Your task to perform on an android device: turn off notifications settings in the gmail app Image 0: 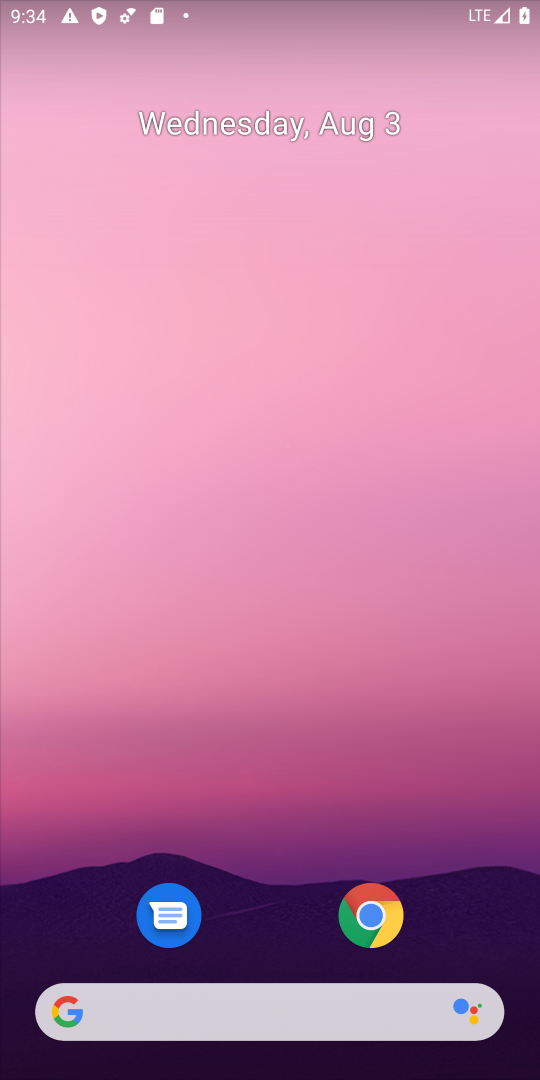
Step 0: drag from (213, 971) to (276, 333)
Your task to perform on an android device: turn off notifications settings in the gmail app Image 1: 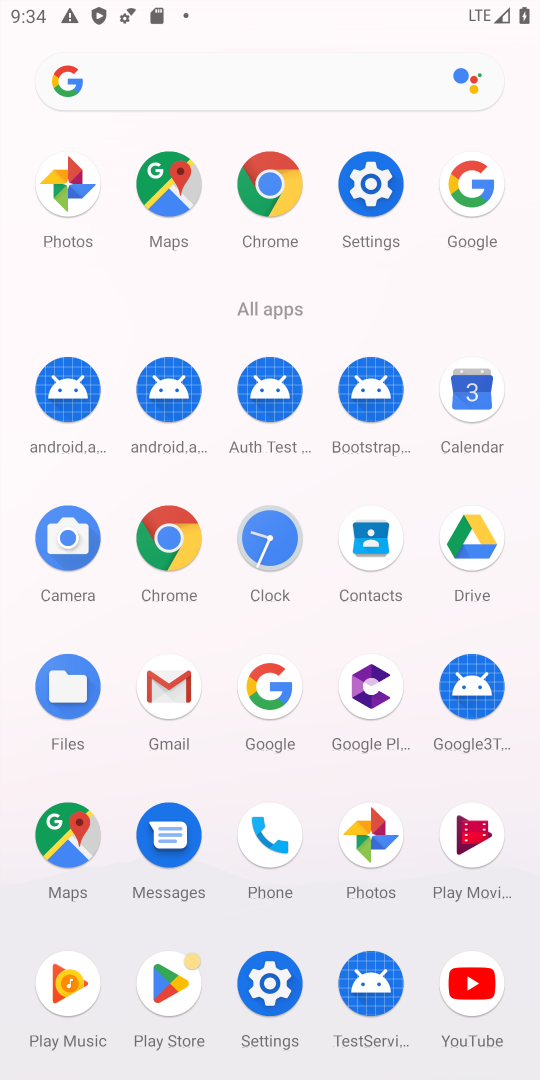
Step 1: click (159, 709)
Your task to perform on an android device: turn off notifications settings in the gmail app Image 2: 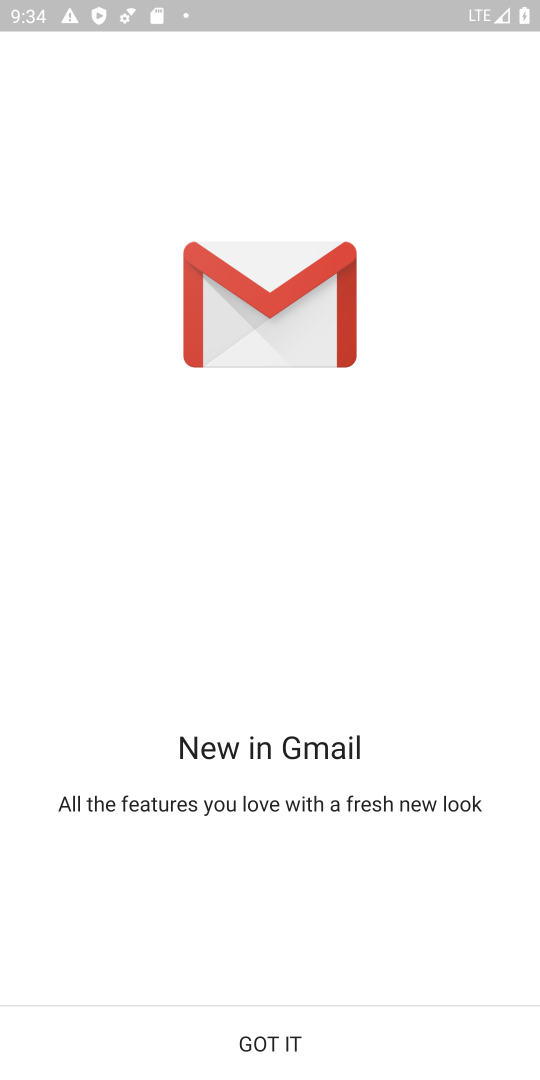
Step 2: click (273, 1047)
Your task to perform on an android device: turn off notifications settings in the gmail app Image 3: 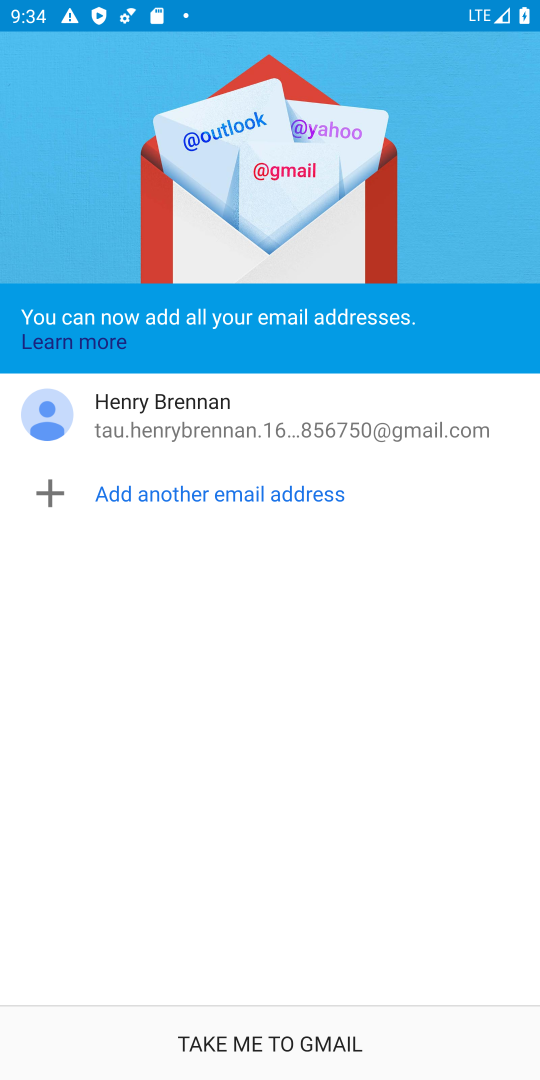
Step 3: click (273, 1046)
Your task to perform on an android device: turn off notifications settings in the gmail app Image 4: 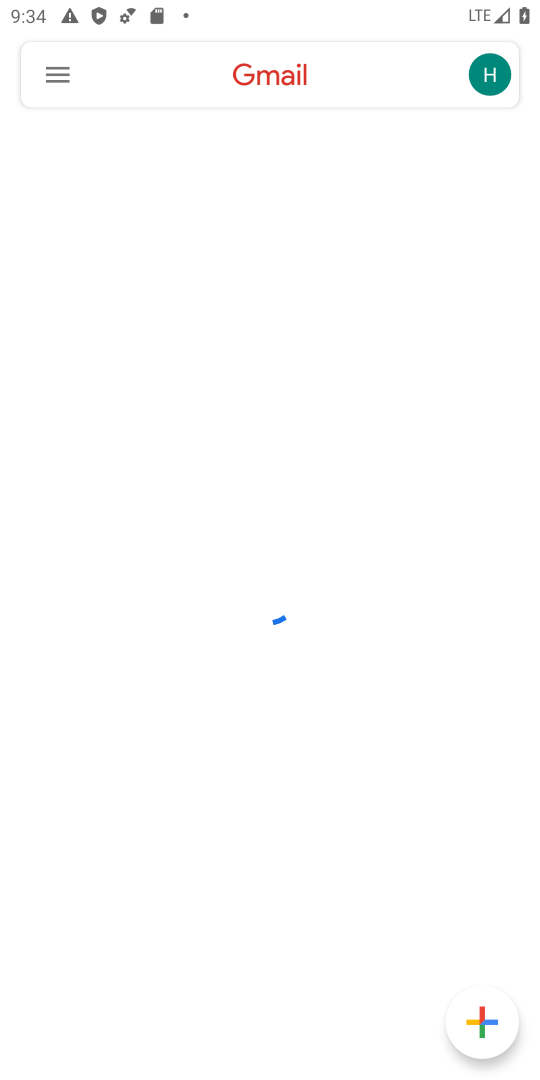
Step 4: click (47, 76)
Your task to perform on an android device: turn off notifications settings in the gmail app Image 5: 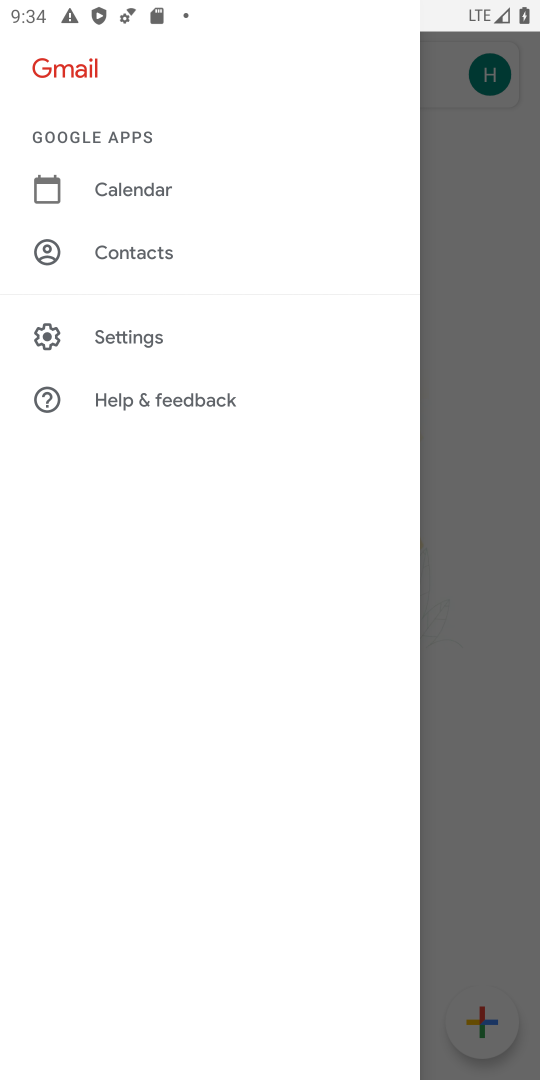
Step 5: click (167, 332)
Your task to perform on an android device: turn off notifications settings in the gmail app Image 6: 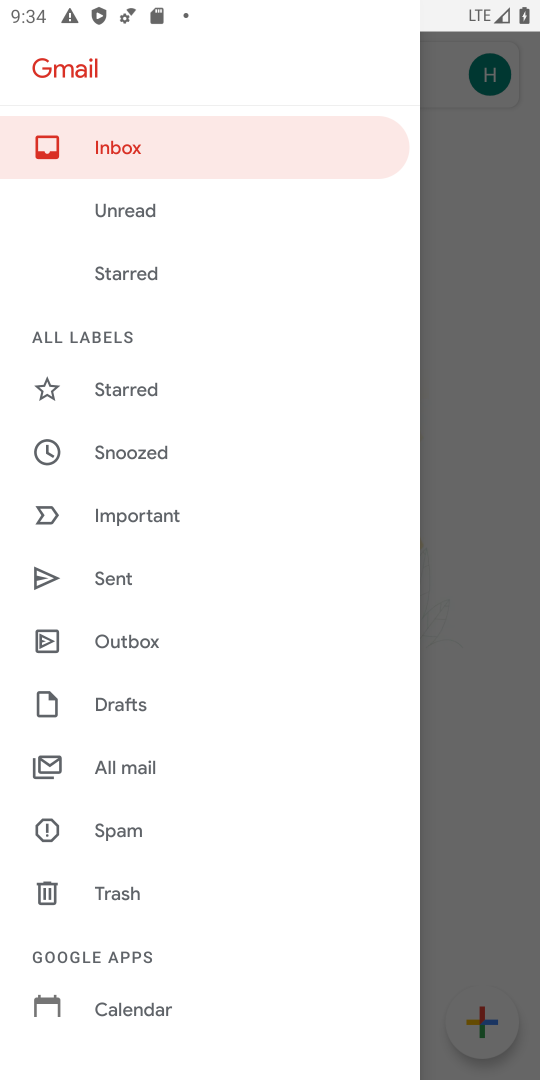
Step 6: drag from (156, 946) to (244, 240)
Your task to perform on an android device: turn off notifications settings in the gmail app Image 7: 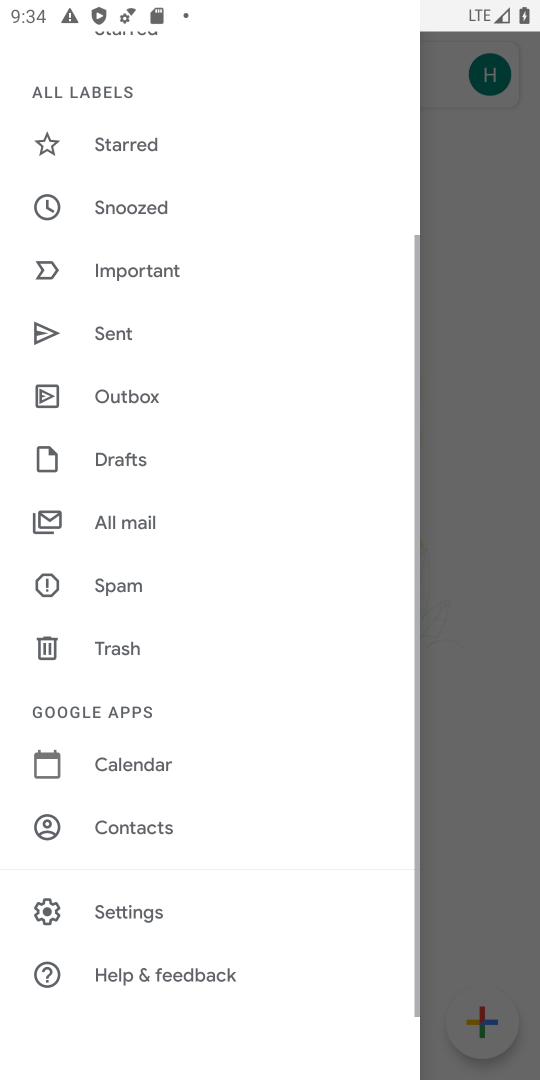
Step 7: click (178, 912)
Your task to perform on an android device: turn off notifications settings in the gmail app Image 8: 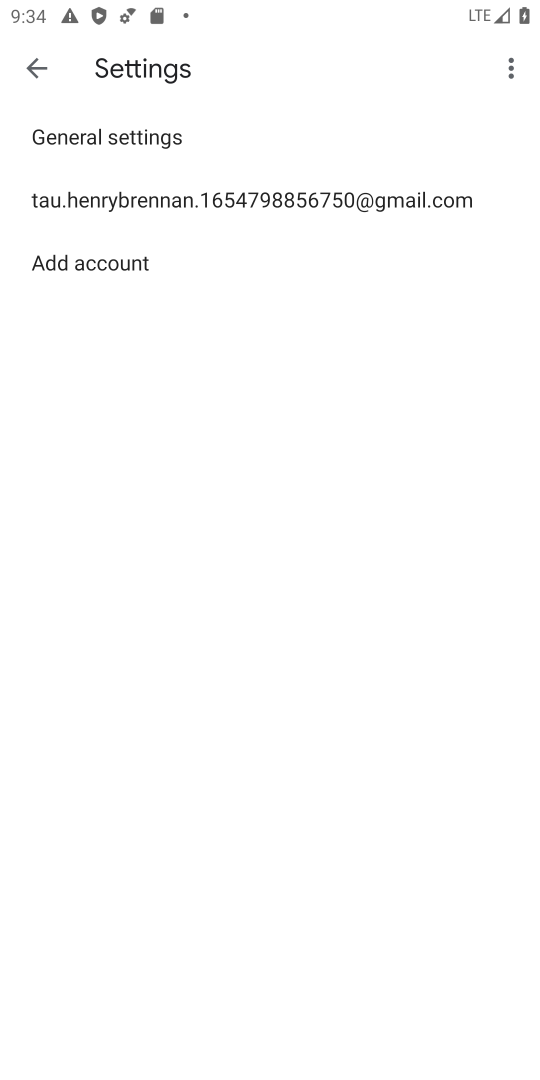
Step 8: click (115, 130)
Your task to perform on an android device: turn off notifications settings in the gmail app Image 9: 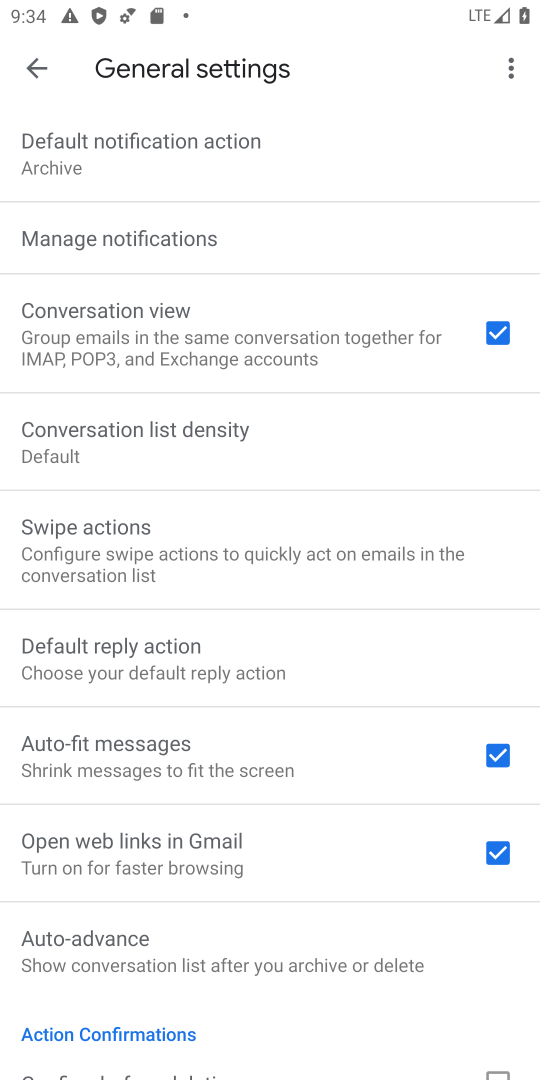
Step 9: drag from (210, 825) to (226, 333)
Your task to perform on an android device: turn off notifications settings in the gmail app Image 10: 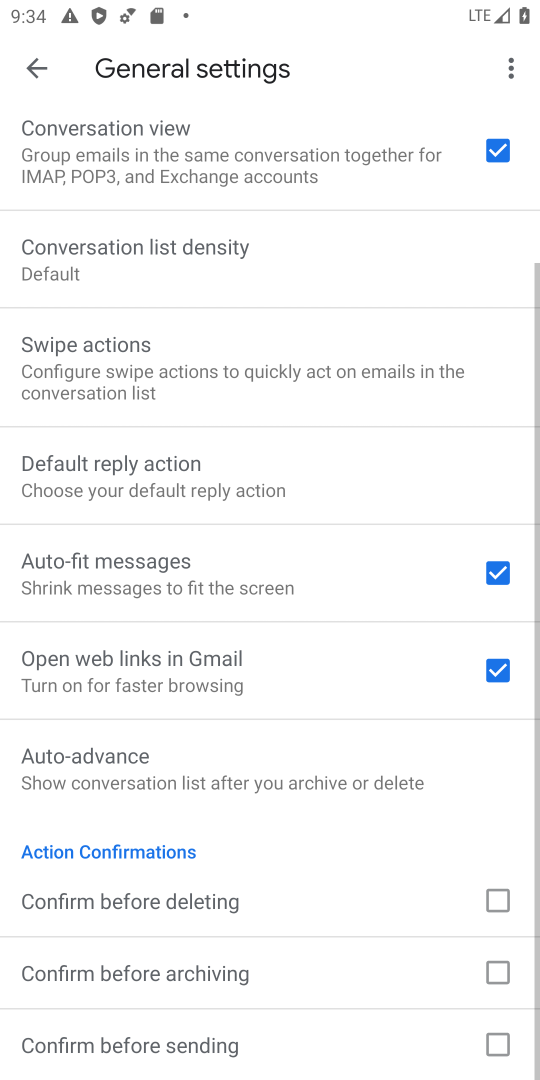
Step 10: drag from (280, 829) to (286, 399)
Your task to perform on an android device: turn off notifications settings in the gmail app Image 11: 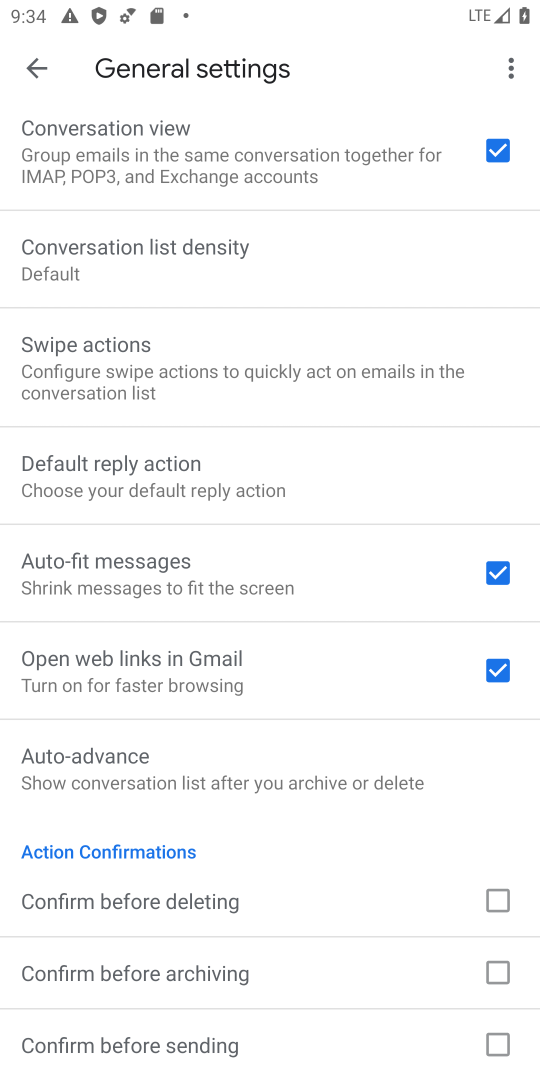
Step 11: drag from (262, 233) to (414, 772)
Your task to perform on an android device: turn off notifications settings in the gmail app Image 12: 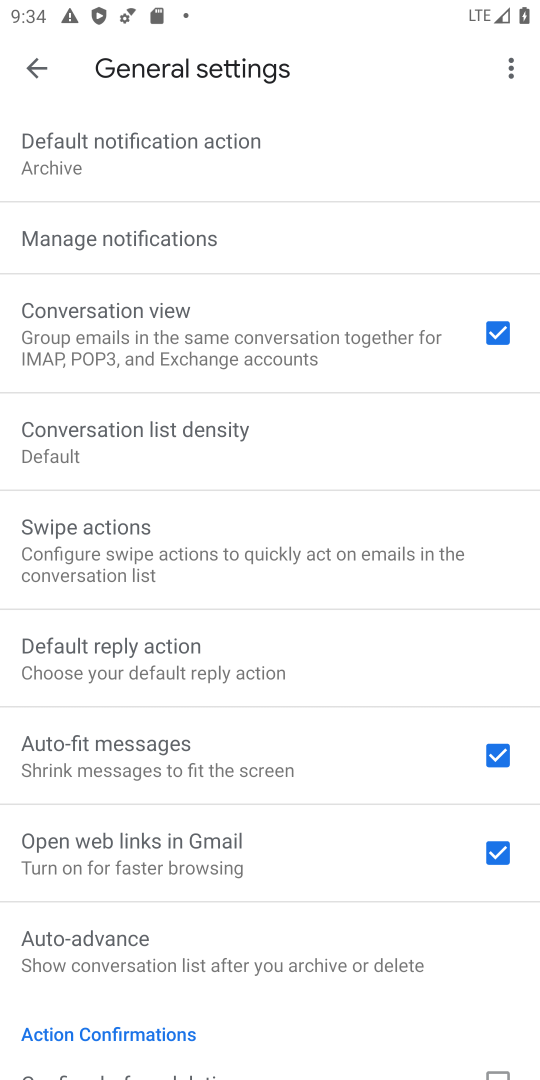
Step 12: click (118, 229)
Your task to perform on an android device: turn off notifications settings in the gmail app Image 13: 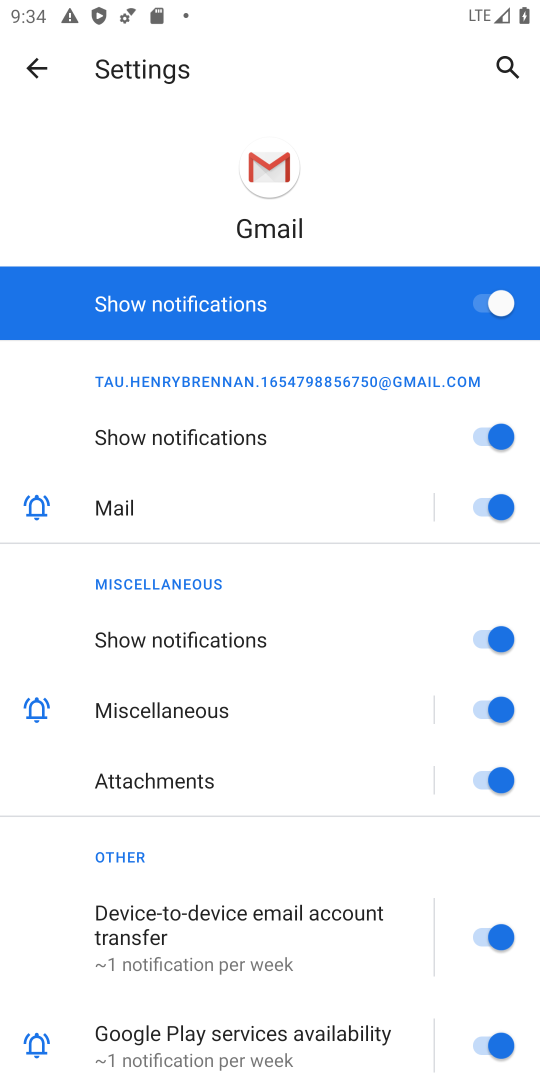
Step 13: click (484, 304)
Your task to perform on an android device: turn off notifications settings in the gmail app Image 14: 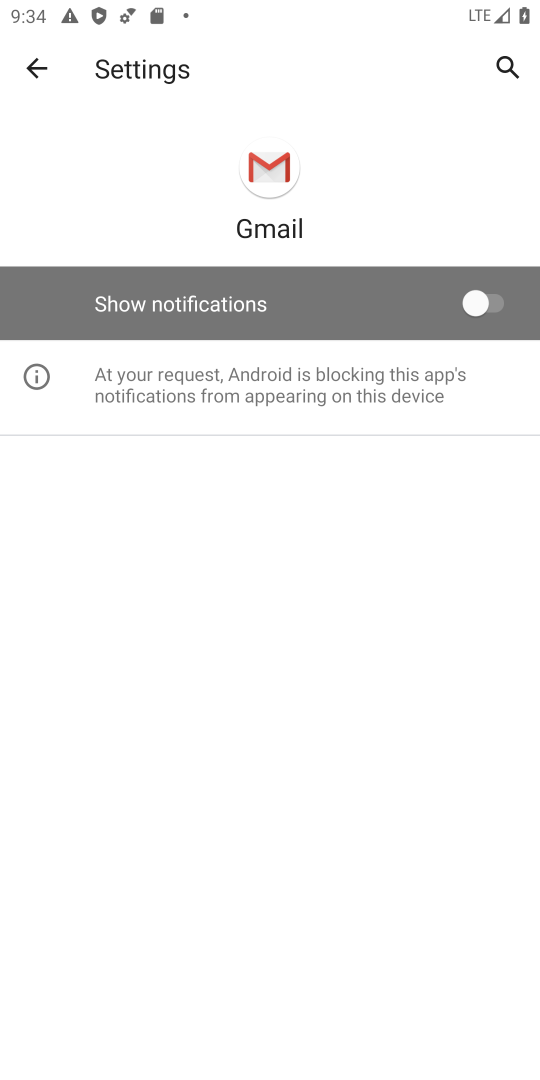
Step 14: task complete